Your task to perform on an android device: open sync settings in chrome Image 0: 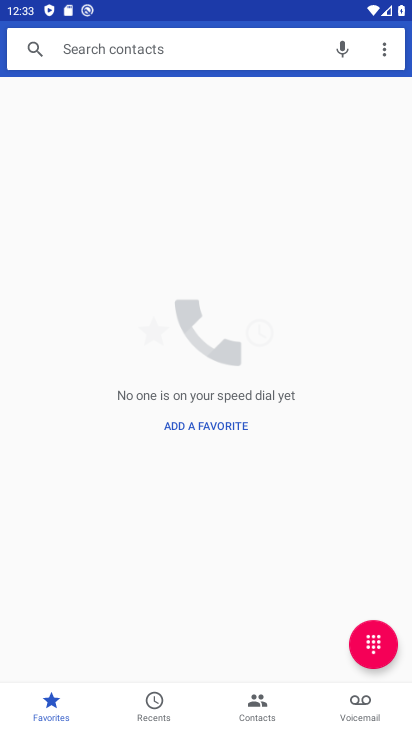
Step 0: press home button
Your task to perform on an android device: open sync settings in chrome Image 1: 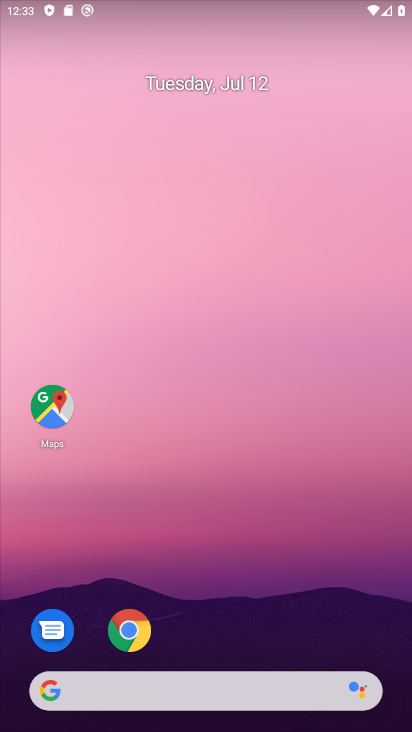
Step 1: click (131, 630)
Your task to perform on an android device: open sync settings in chrome Image 2: 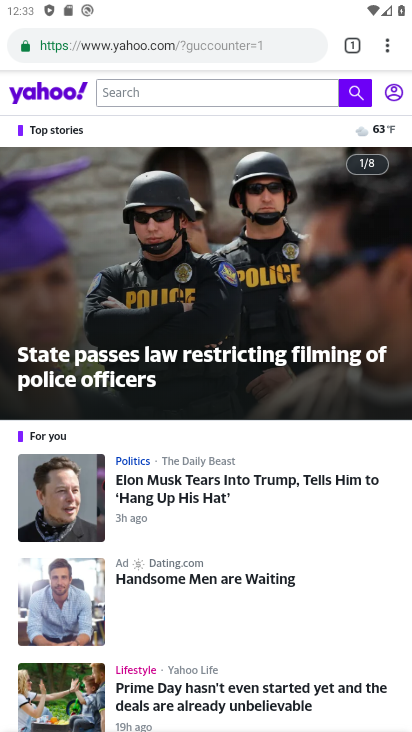
Step 2: click (386, 47)
Your task to perform on an android device: open sync settings in chrome Image 3: 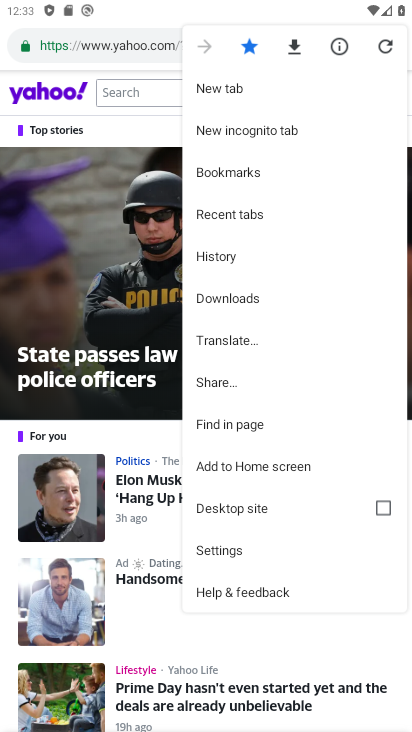
Step 3: click (245, 545)
Your task to perform on an android device: open sync settings in chrome Image 4: 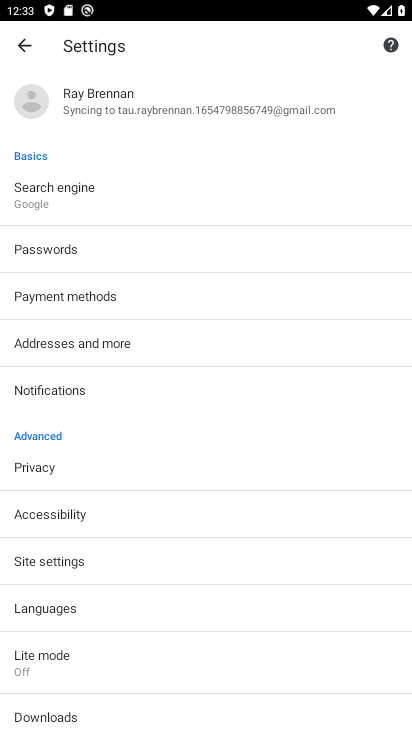
Step 4: click (114, 105)
Your task to perform on an android device: open sync settings in chrome Image 5: 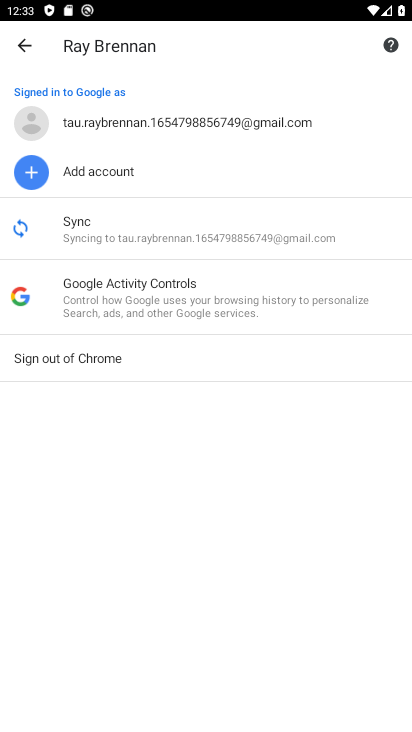
Step 5: click (88, 232)
Your task to perform on an android device: open sync settings in chrome Image 6: 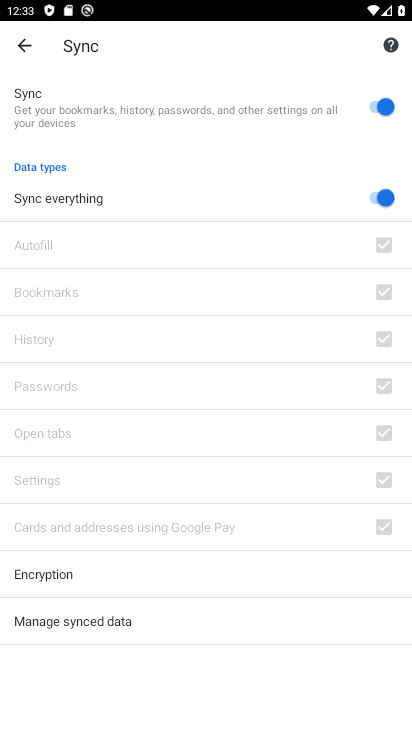
Step 6: task complete